Your task to perform on an android device: set an alarm Image 0: 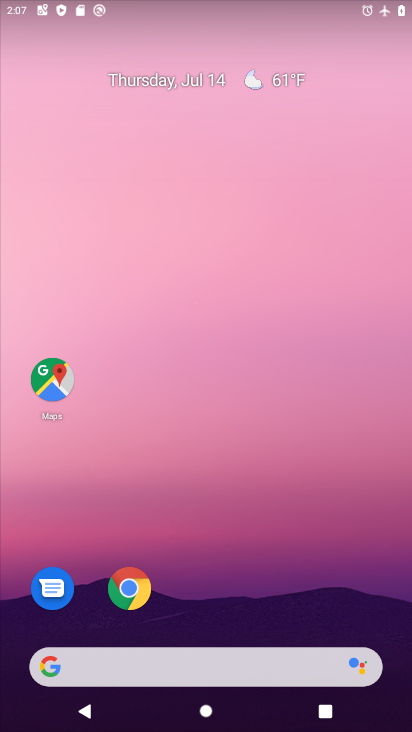
Step 0: drag from (261, 607) to (239, 228)
Your task to perform on an android device: set an alarm Image 1: 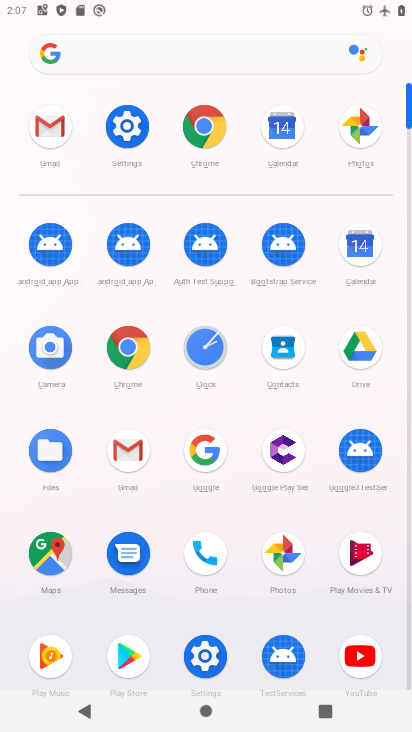
Step 1: click (195, 338)
Your task to perform on an android device: set an alarm Image 2: 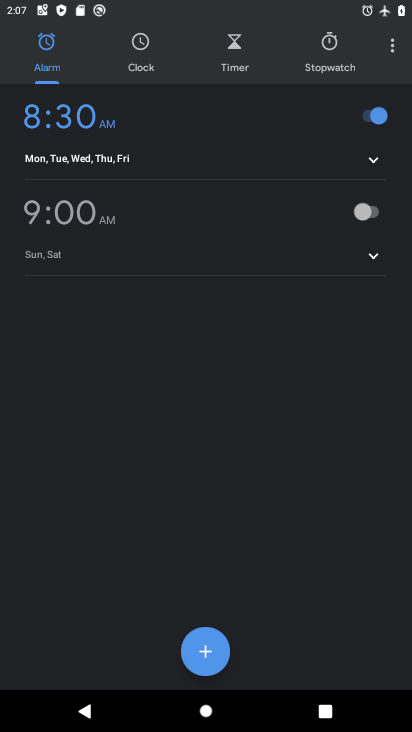
Step 2: click (360, 214)
Your task to perform on an android device: set an alarm Image 3: 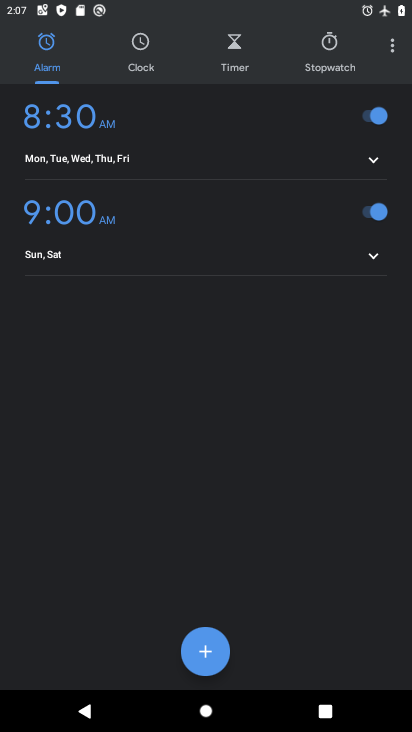
Step 3: task complete